Your task to perform on an android device: set the stopwatch Image 0: 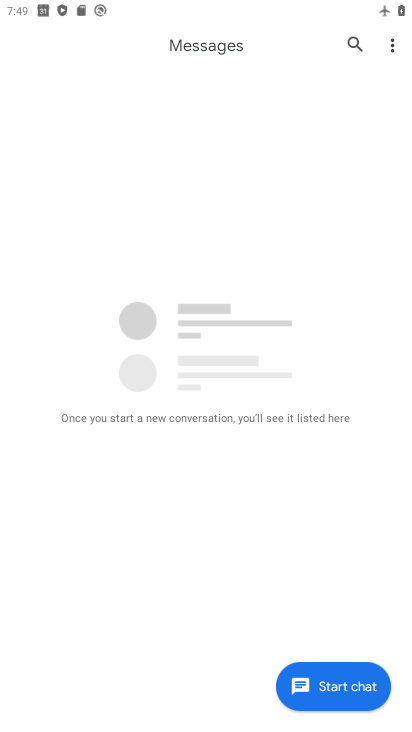
Step 0: press home button
Your task to perform on an android device: set the stopwatch Image 1: 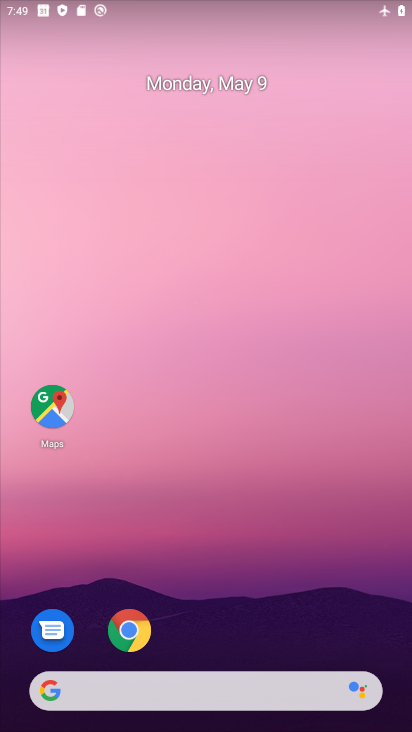
Step 1: drag from (316, 611) to (297, 215)
Your task to perform on an android device: set the stopwatch Image 2: 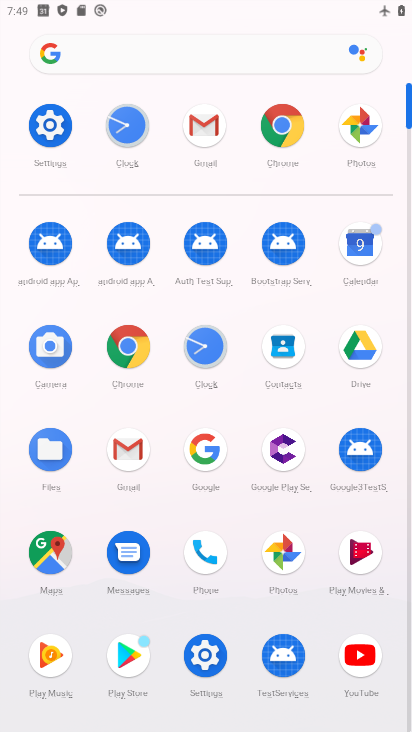
Step 2: click (203, 349)
Your task to perform on an android device: set the stopwatch Image 3: 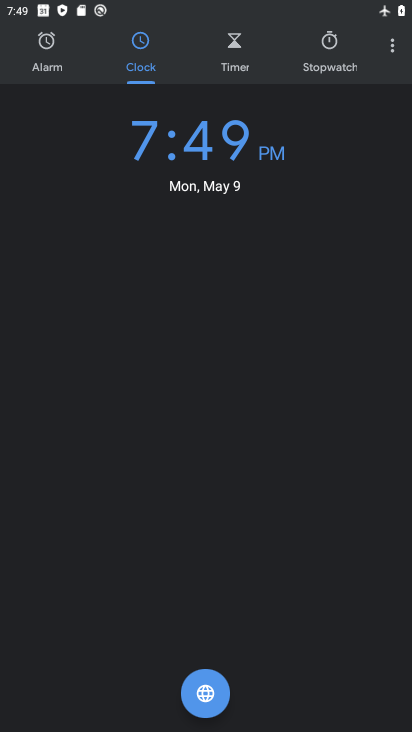
Step 3: click (334, 58)
Your task to perform on an android device: set the stopwatch Image 4: 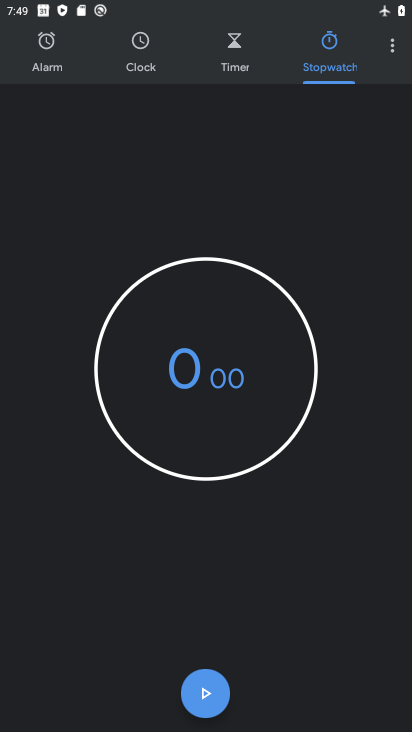
Step 4: click (195, 699)
Your task to perform on an android device: set the stopwatch Image 5: 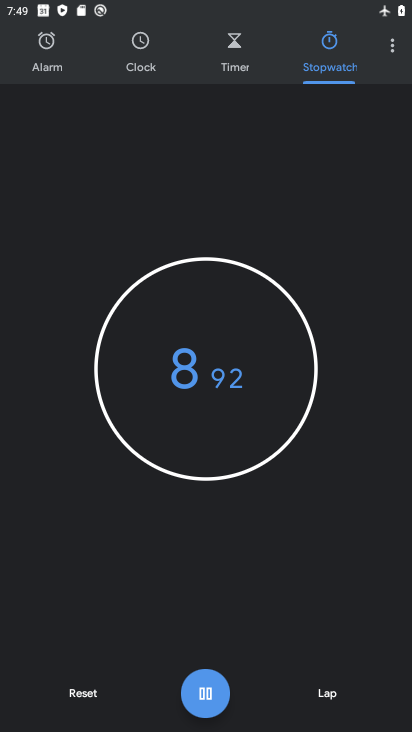
Step 5: click (209, 691)
Your task to perform on an android device: set the stopwatch Image 6: 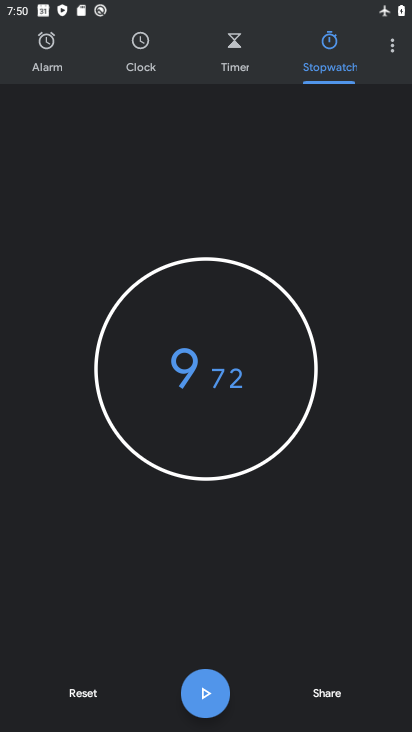
Step 6: task complete